Your task to perform on an android device: open device folders in google photos Image 0: 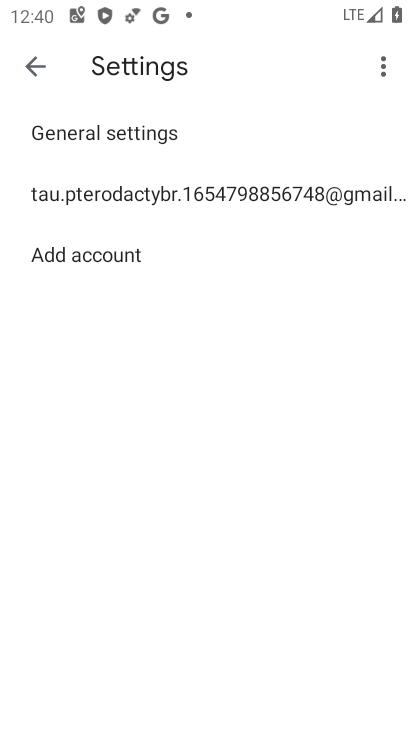
Step 0: press home button
Your task to perform on an android device: open device folders in google photos Image 1: 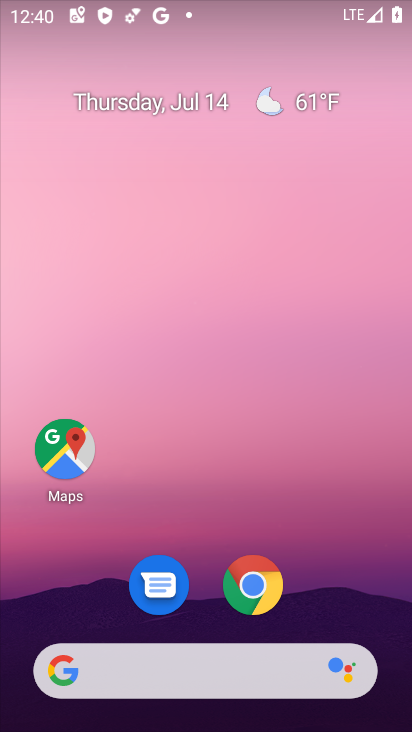
Step 1: drag from (315, 522) to (296, 30)
Your task to perform on an android device: open device folders in google photos Image 2: 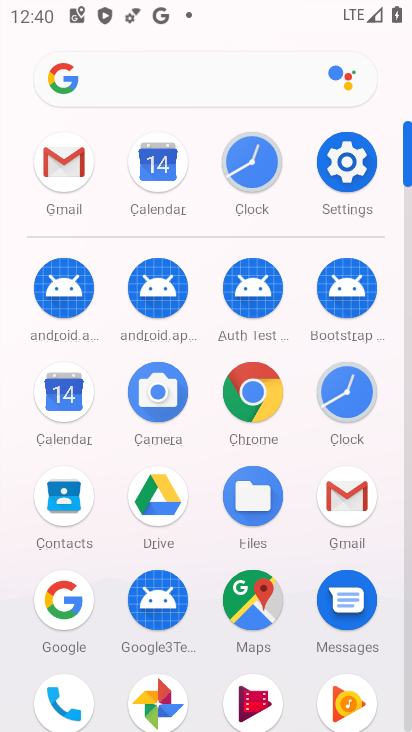
Step 2: drag from (194, 515) to (231, 254)
Your task to perform on an android device: open device folders in google photos Image 3: 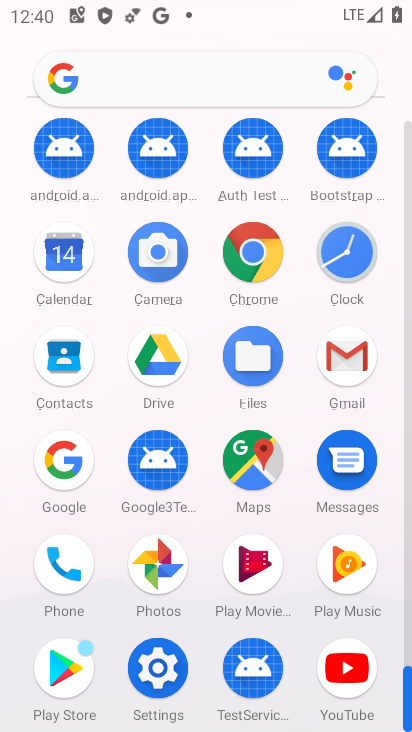
Step 3: click (168, 562)
Your task to perform on an android device: open device folders in google photos Image 4: 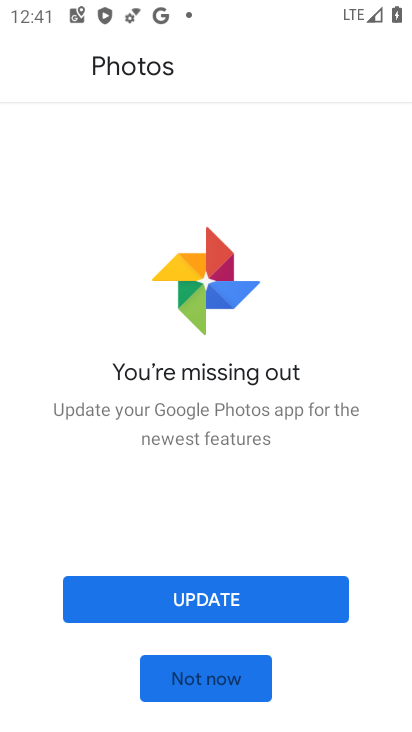
Step 4: click (221, 687)
Your task to perform on an android device: open device folders in google photos Image 5: 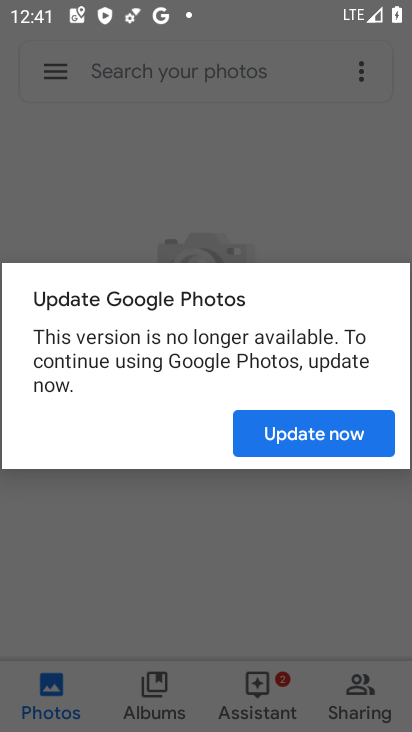
Step 5: click (381, 439)
Your task to perform on an android device: open device folders in google photos Image 6: 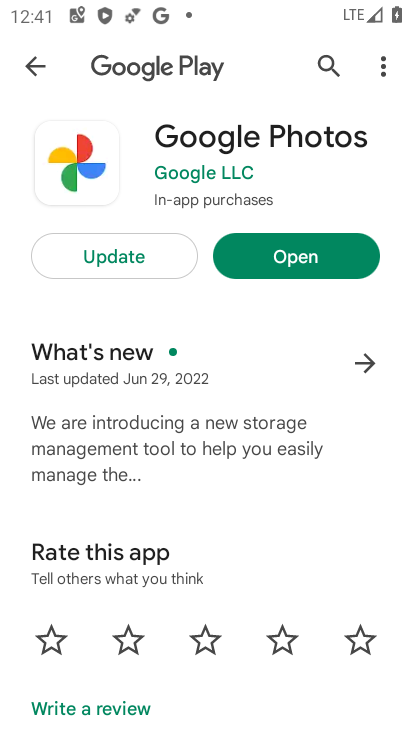
Step 6: click (303, 254)
Your task to perform on an android device: open device folders in google photos Image 7: 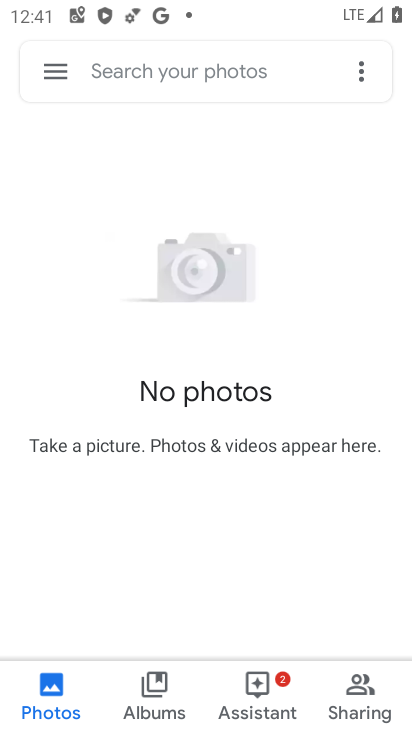
Step 7: click (59, 75)
Your task to perform on an android device: open device folders in google photos Image 8: 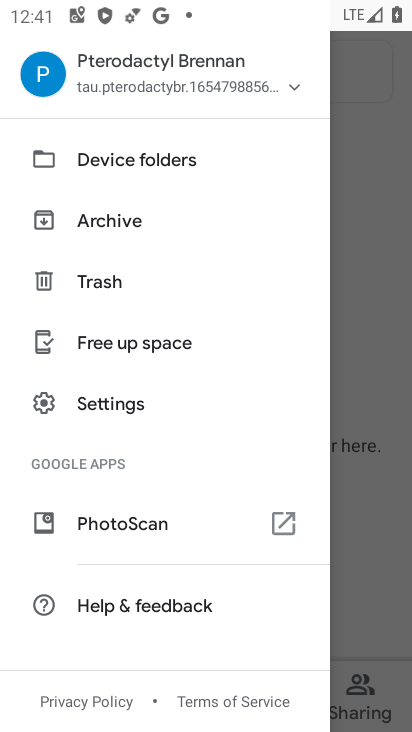
Step 8: click (88, 157)
Your task to perform on an android device: open device folders in google photos Image 9: 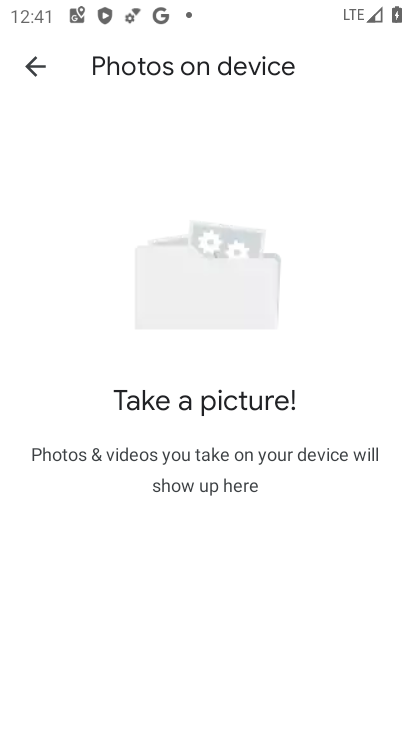
Step 9: task complete